Your task to perform on an android device: turn off notifications in google photos Image 0: 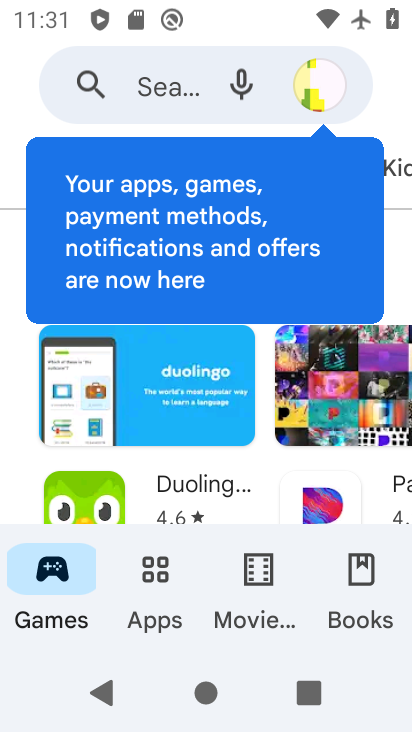
Step 0: press home button
Your task to perform on an android device: turn off notifications in google photos Image 1: 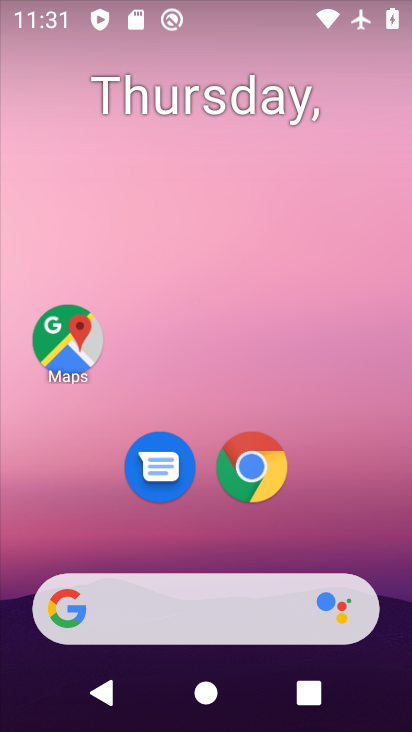
Step 1: drag from (350, 554) to (336, 6)
Your task to perform on an android device: turn off notifications in google photos Image 2: 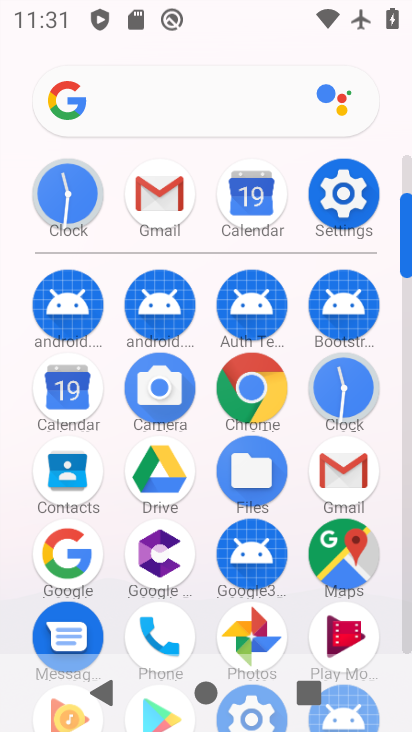
Step 2: click (250, 620)
Your task to perform on an android device: turn off notifications in google photos Image 3: 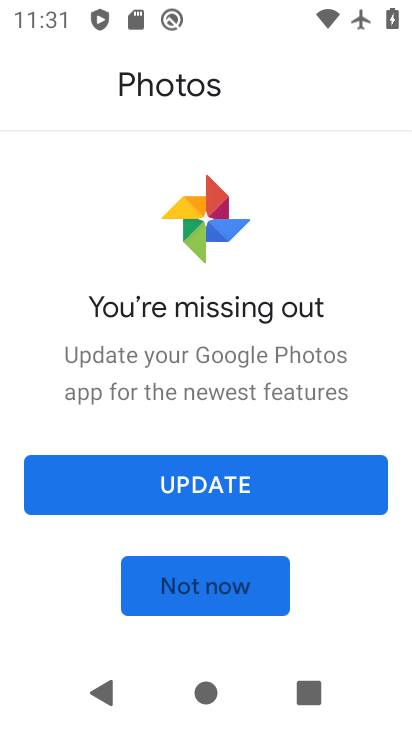
Step 3: click (221, 589)
Your task to perform on an android device: turn off notifications in google photos Image 4: 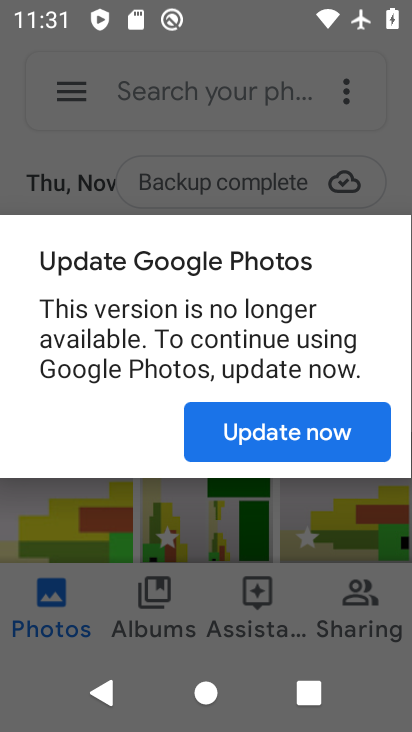
Step 4: click (284, 442)
Your task to perform on an android device: turn off notifications in google photos Image 5: 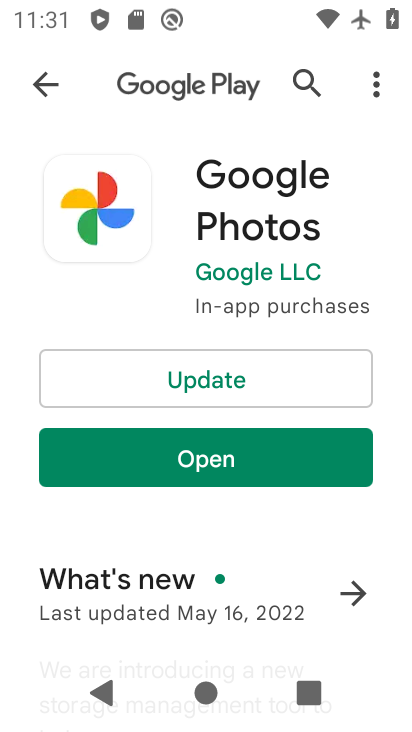
Step 5: click (196, 460)
Your task to perform on an android device: turn off notifications in google photos Image 6: 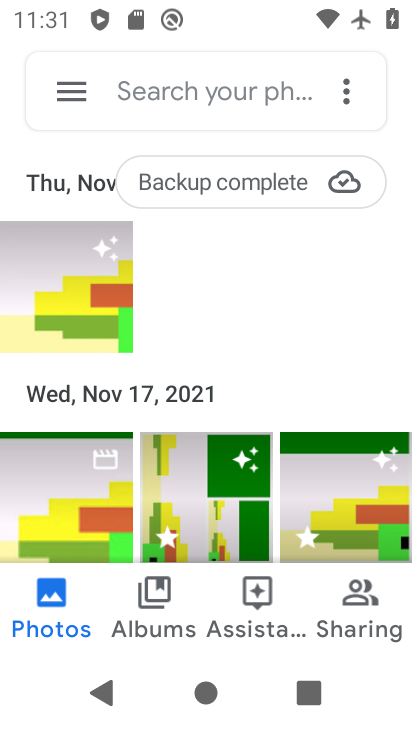
Step 6: click (76, 96)
Your task to perform on an android device: turn off notifications in google photos Image 7: 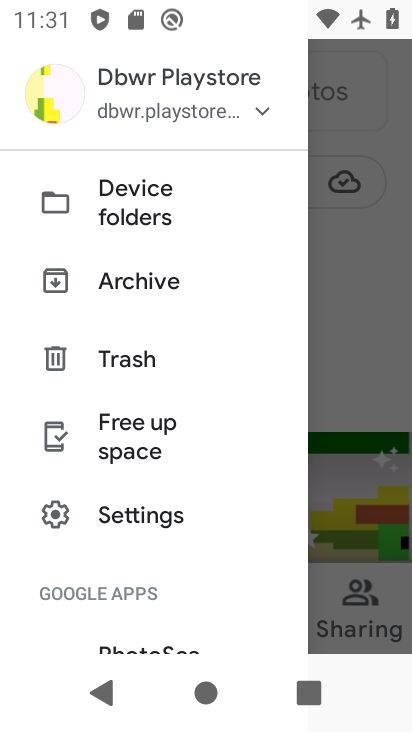
Step 7: click (129, 514)
Your task to perform on an android device: turn off notifications in google photos Image 8: 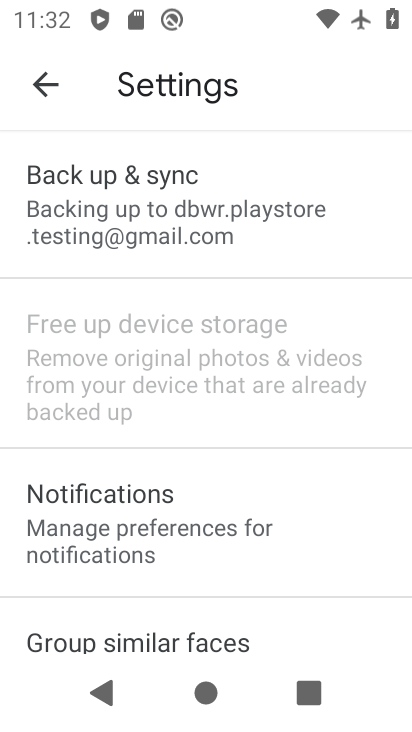
Step 8: click (119, 528)
Your task to perform on an android device: turn off notifications in google photos Image 9: 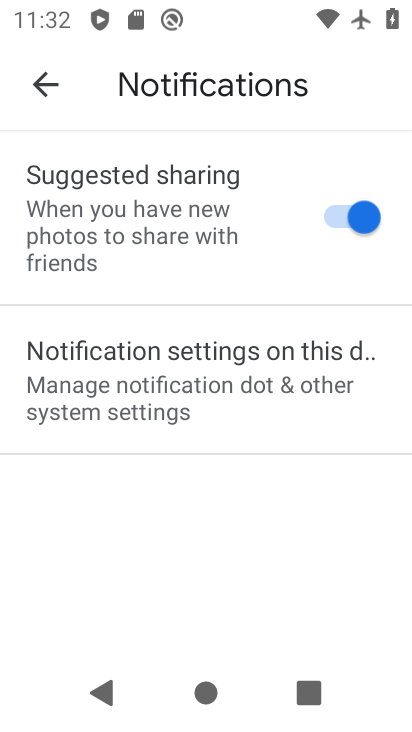
Step 9: click (127, 414)
Your task to perform on an android device: turn off notifications in google photos Image 10: 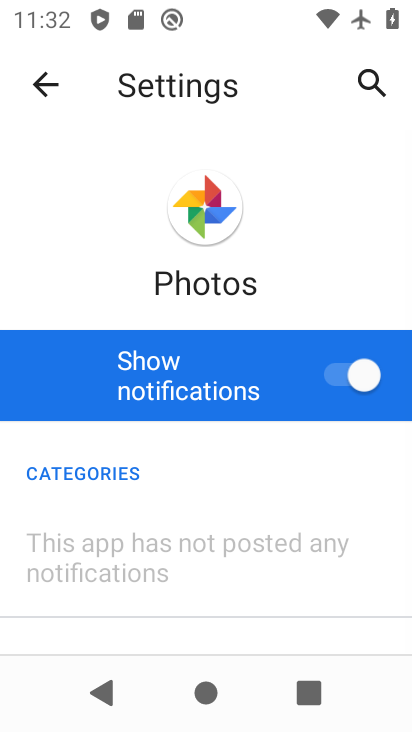
Step 10: click (359, 374)
Your task to perform on an android device: turn off notifications in google photos Image 11: 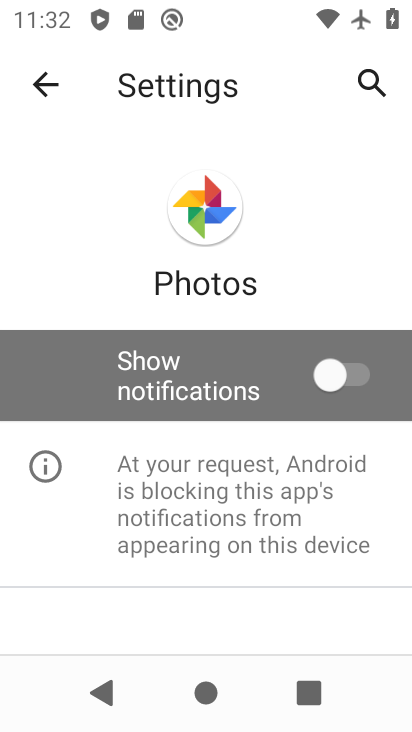
Step 11: task complete